Your task to perform on an android device: allow cookies in the chrome app Image 0: 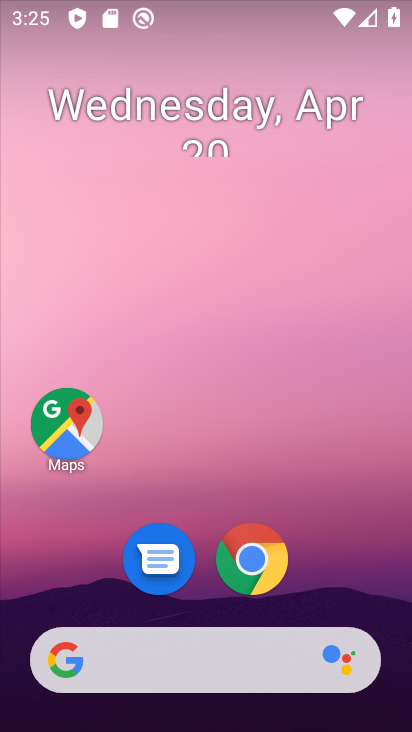
Step 0: click (257, 556)
Your task to perform on an android device: allow cookies in the chrome app Image 1: 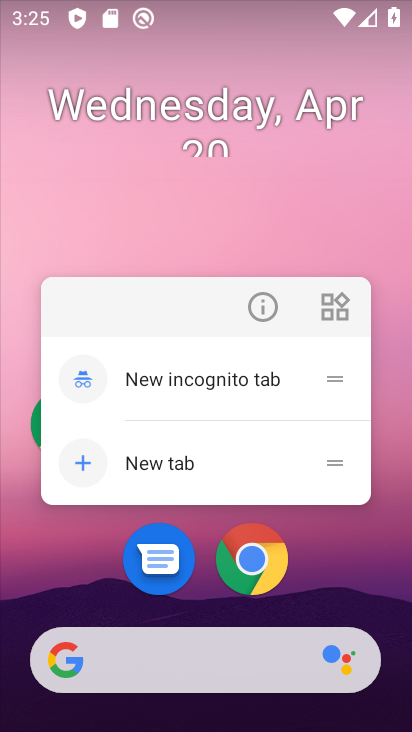
Step 1: click (273, 313)
Your task to perform on an android device: allow cookies in the chrome app Image 2: 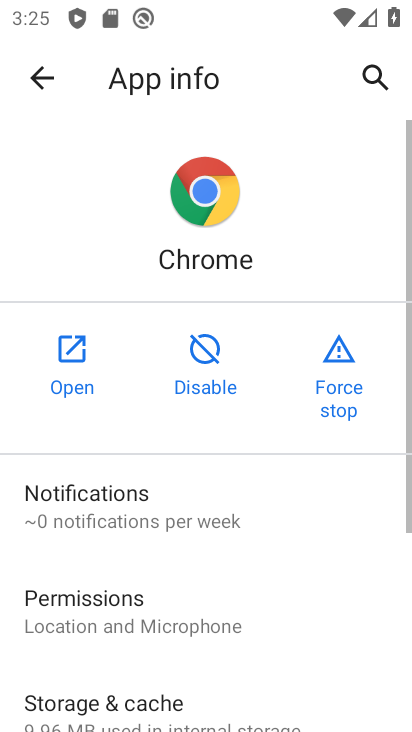
Step 2: click (75, 359)
Your task to perform on an android device: allow cookies in the chrome app Image 3: 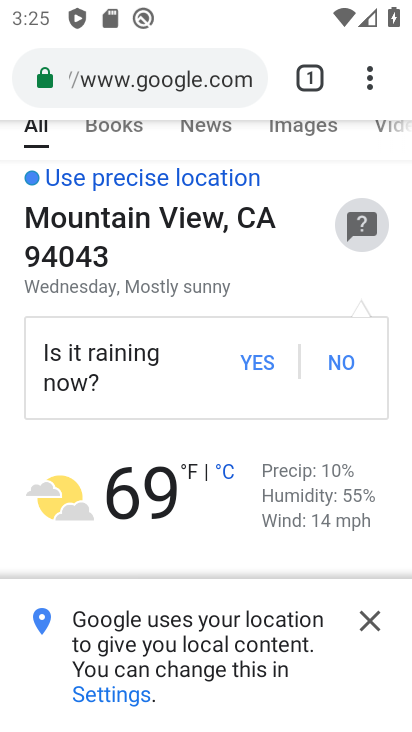
Step 3: click (369, 81)
Your task to perform on an android device: allow cookies in the chrome app Image 4: 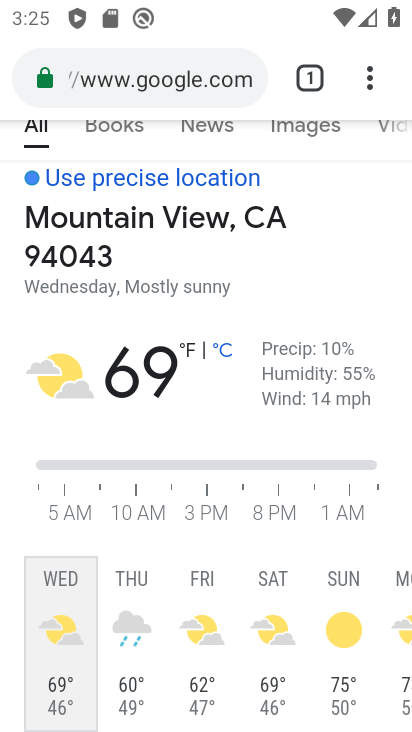
Step 4: click (365, 72)
Your task to perform on an android device: allow cookies in the chrome app Image 5: 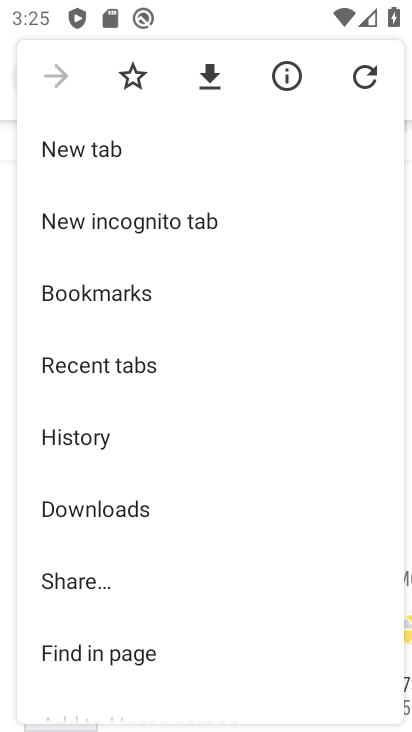
Step 5: drag from (126, 612) to (170, 296)
Your task to perform on an android device: allow cookies in the chrome app Image 6: 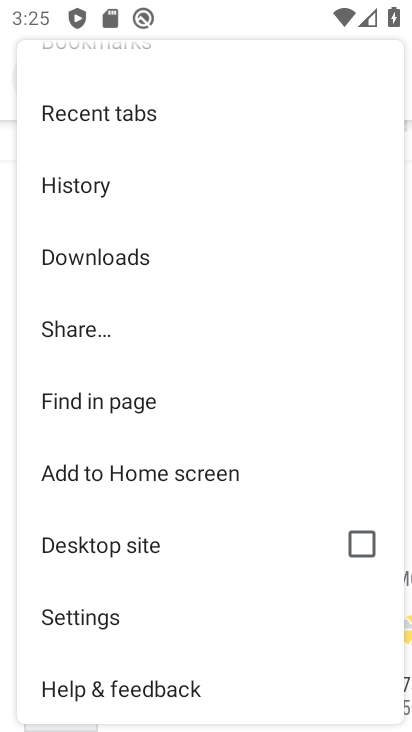
Step 6: click (57, 623)
Your task to perform on an android device: allow cookies in the chrome app Image 7: 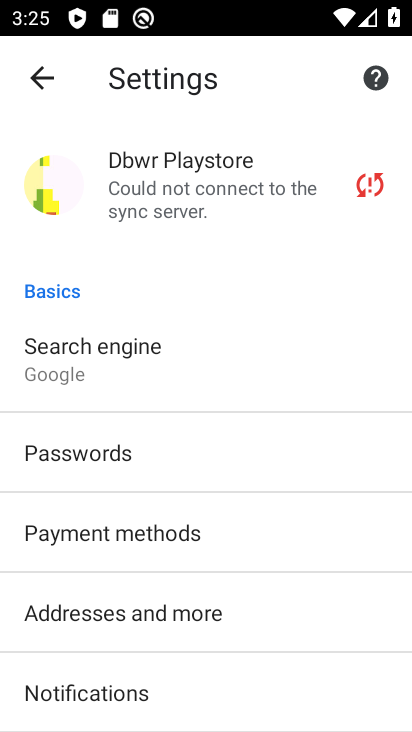
Step 7: drag from (162, 642) to (193, 338)
Your task to perform on an android device: allow cookies in the chrome app Image 8: 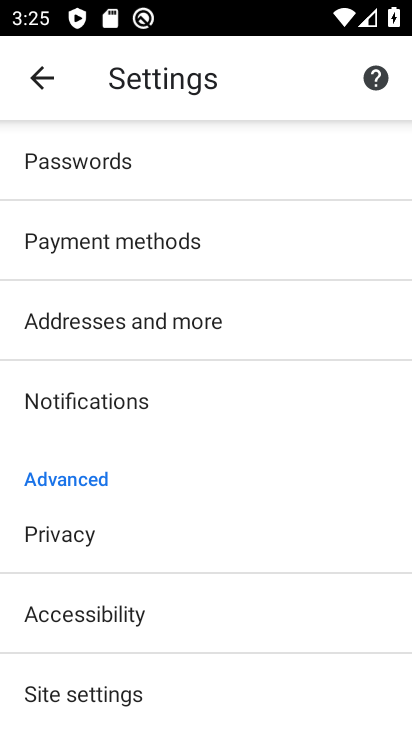
Step 8: drag from (157, 568) to (209, 298)
Your task to perform on an android device: allow cookies in the chrome app Image 9: 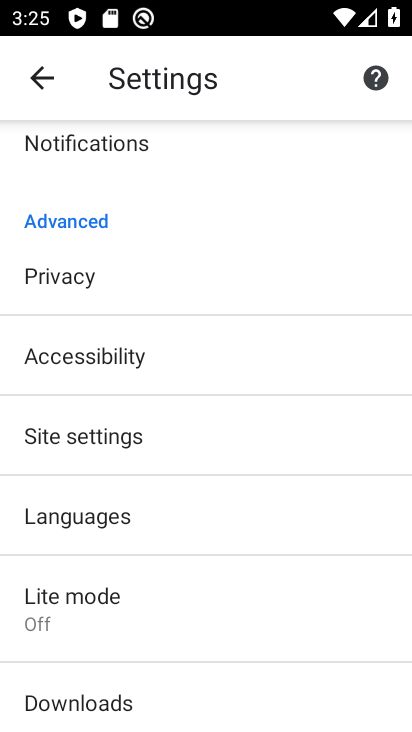
Step 9: click (92, 442)
Your task to perform on an android device: allow cookies in the chrome app Image 10: 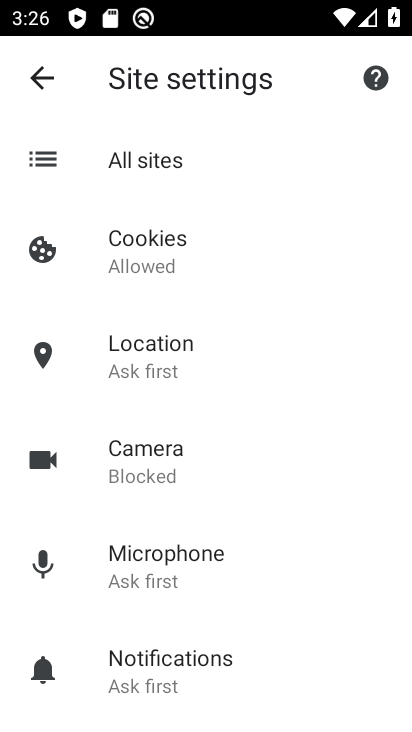
Step 10: click (196, 252)
Your task to perform on an android device: allow cookies in the chrome app Image 11: 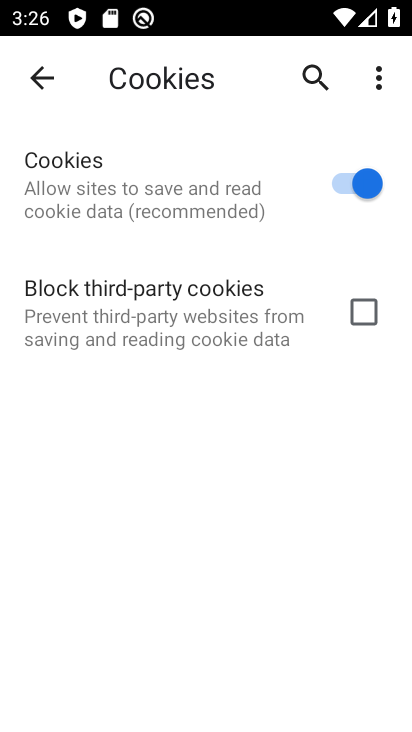
Step 11: task complete